Your task to perform on an android device: Open Google Chrome Image 0: 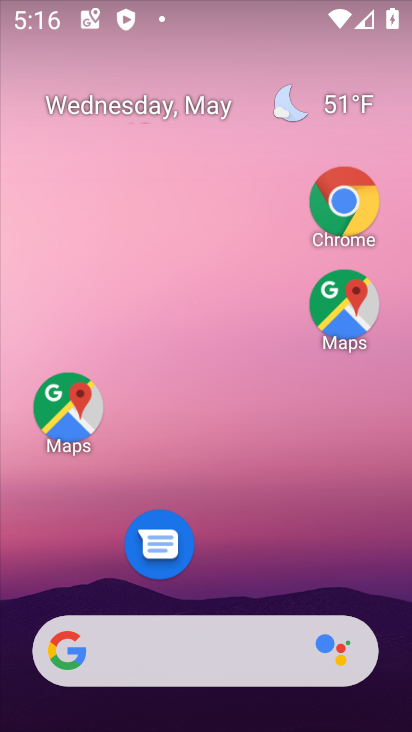
Step 0: click (331, 219)
Your task to perform on an android device: Open Google Chrome Image 1: 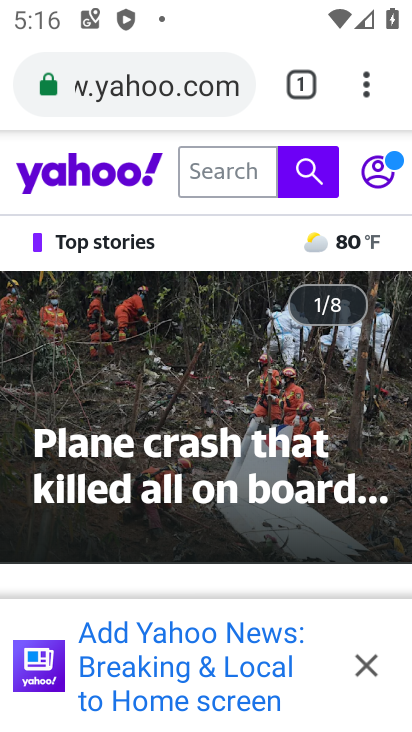
Step 1: task complete